Your task to perform on an android device: show emergency info Image 0: 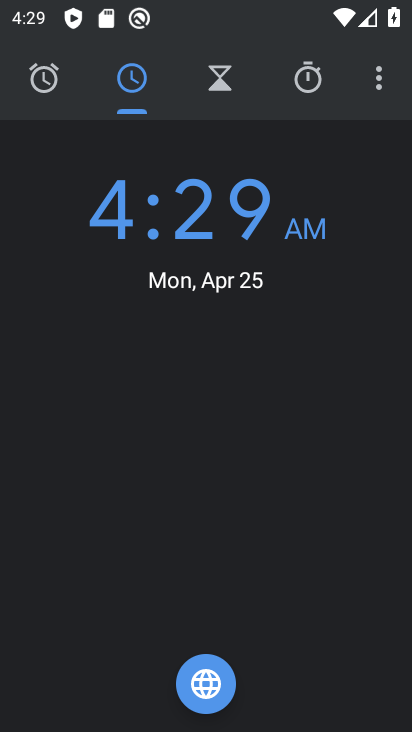
Step 0: press home button
Your task to perform on an android device: show emergency info Image 1: 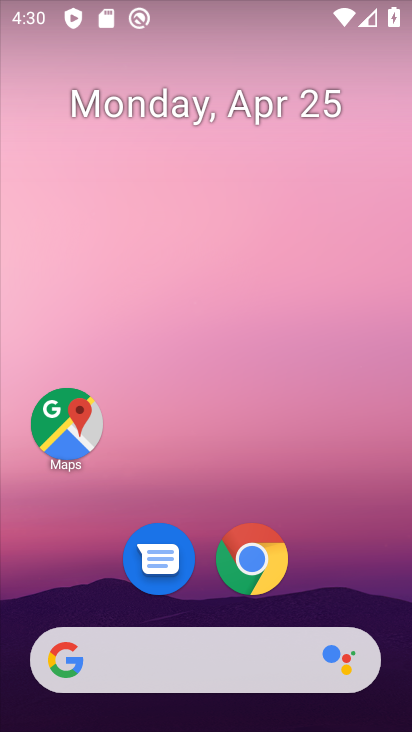
Step 1: drag from (295, 569) to (350, 70)
Your task to perform on an android device: show emergency info Image 2: 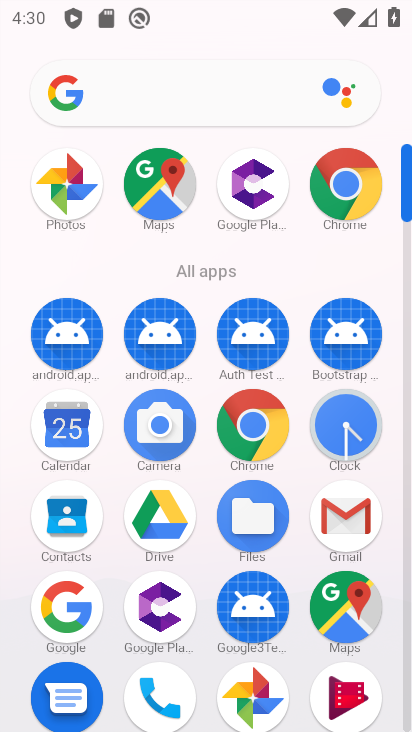
Step 2: drag from (204, 656) to (260, 109)
Your task to perform on an android device: show emergency info Image 3: 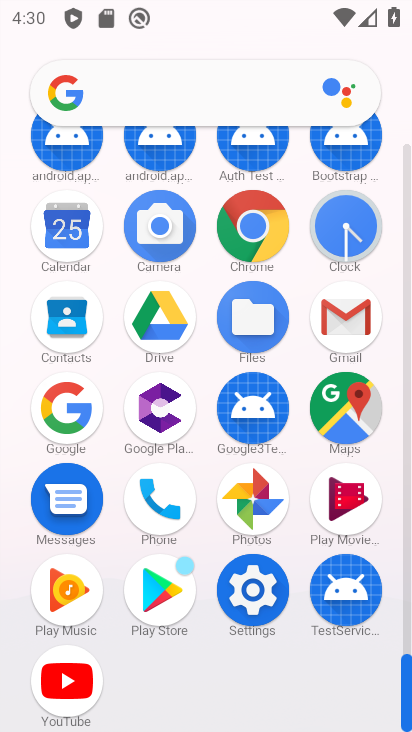
Step 3: click (249, 594)
Your task to perform on an android device: show emergency info Image 4: 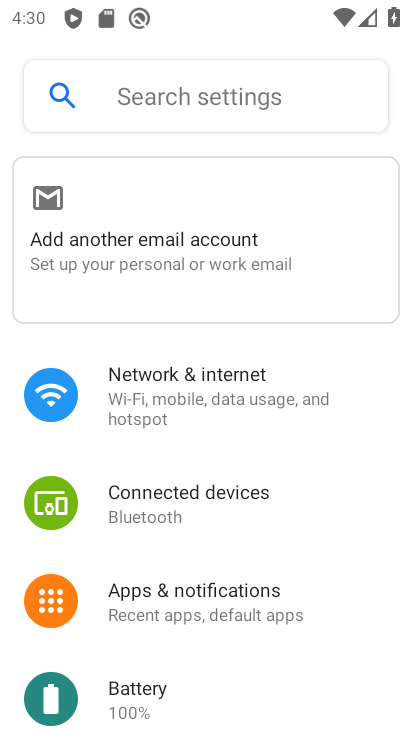
Step 4: drag from (249, 594) to (296, 131)
Your task to perform on an android device: show emergency info Image 5: 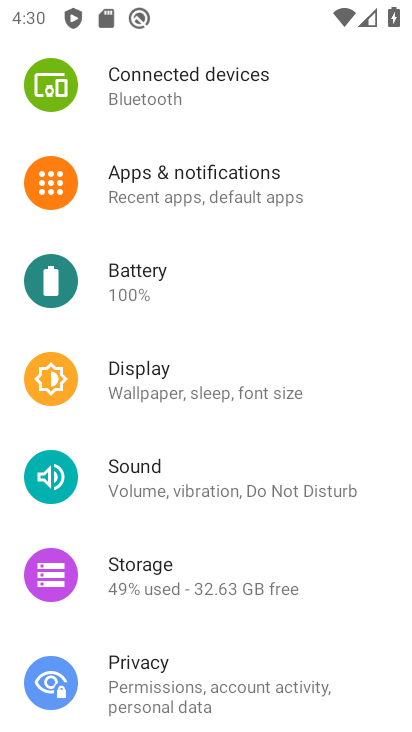
Step 5: drag from (86, 670) to (171, 206)
Your task to perform on an android device: show emergency info Image 6: 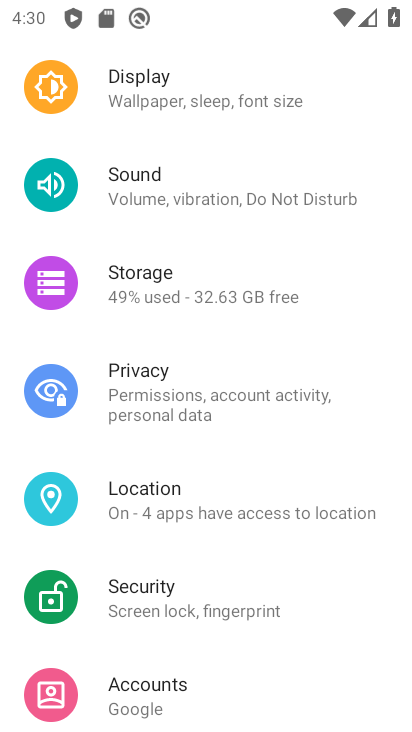
Step 6: drag from (164, 524) to (248, 96)
Your task to perform on an android device: show emergency info Image 7: 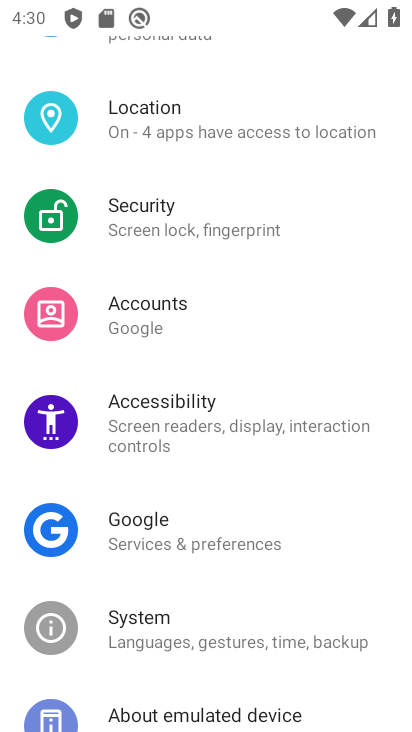
Step 7: drag from (126, 633) to (204, 162)
Your task to perform on an android device: show emergency info Image 8: 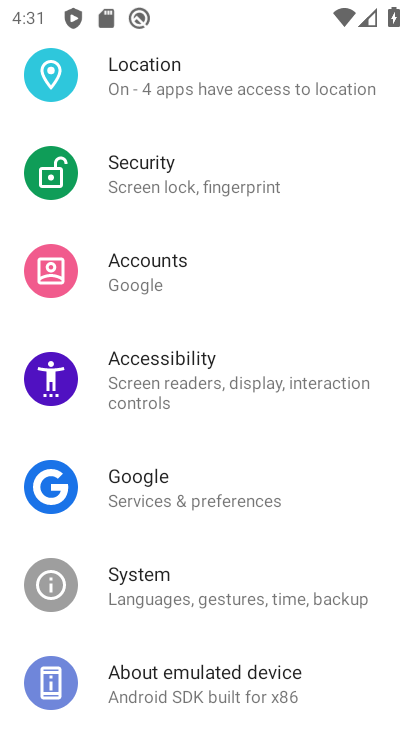
Step 8: drag from (175, 601) to (253, 90)
Your task to perform on an android device: show emergency info Image 9: 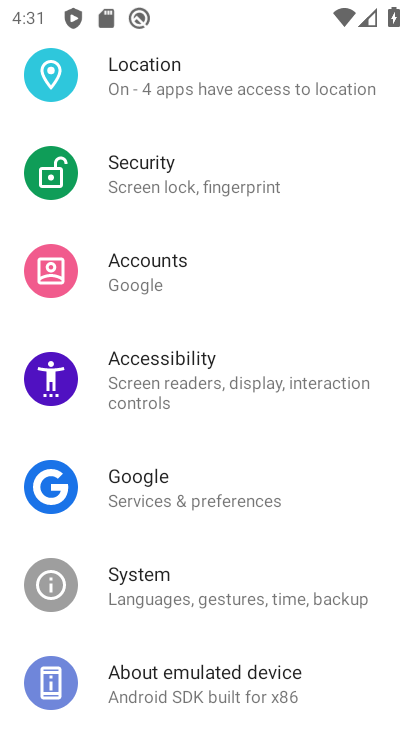
Step 9: drag from (159, 611) to (185, 286)
Your task to perform on an android device: show emergency info Image 10: 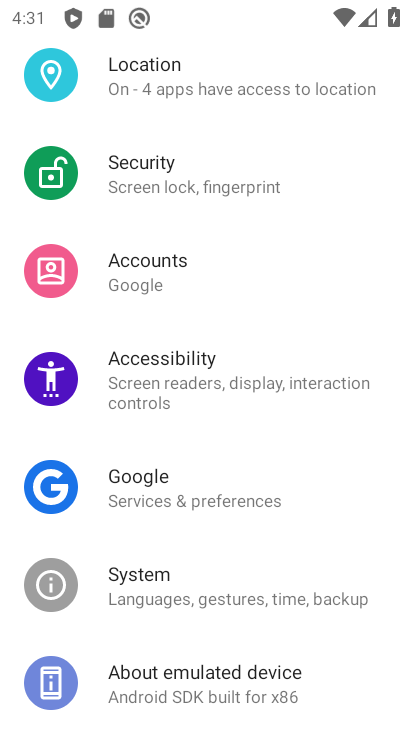
Step 10: click (179, 695)
Your task to perform on an android device: show emergency info Image 11: 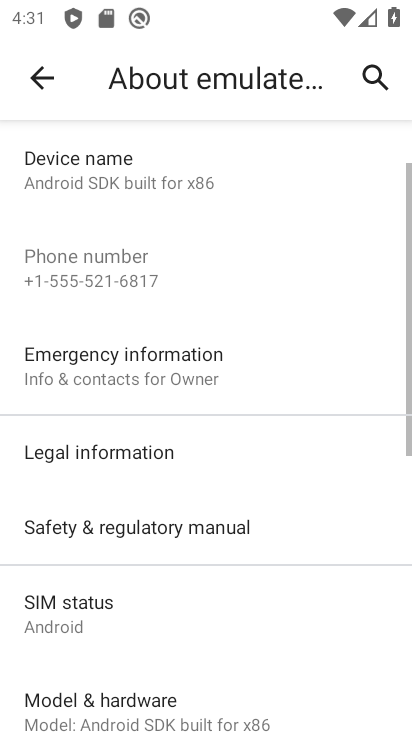
Step 11: drag from (179, 695) to (282, 84)
Your task to perform on an android device: show emergency info Image 12: 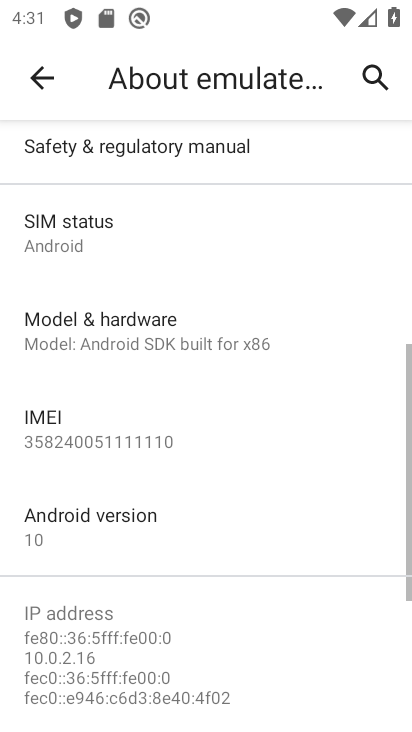
Step 12: drag from (117, 189) to (135, 645)
Your task to perform on an android device: show emergency info Image 13: 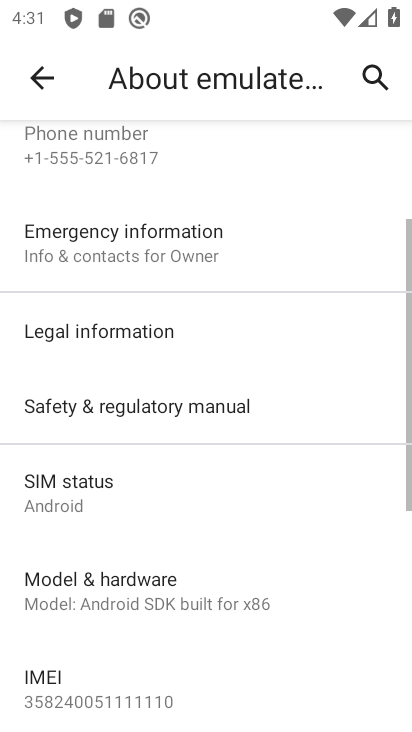
Step 13: click (185, 261)
Your task to perform on an android device: show emergency info Image 14: 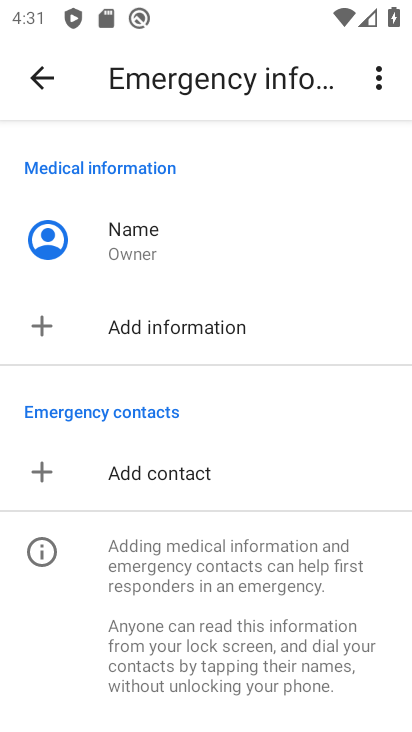
Step 14: task complete